Your task to perform on an android device: Empty the shopping cart on ebay.com. Add usb-a to the cart on ebay.com Image 0: 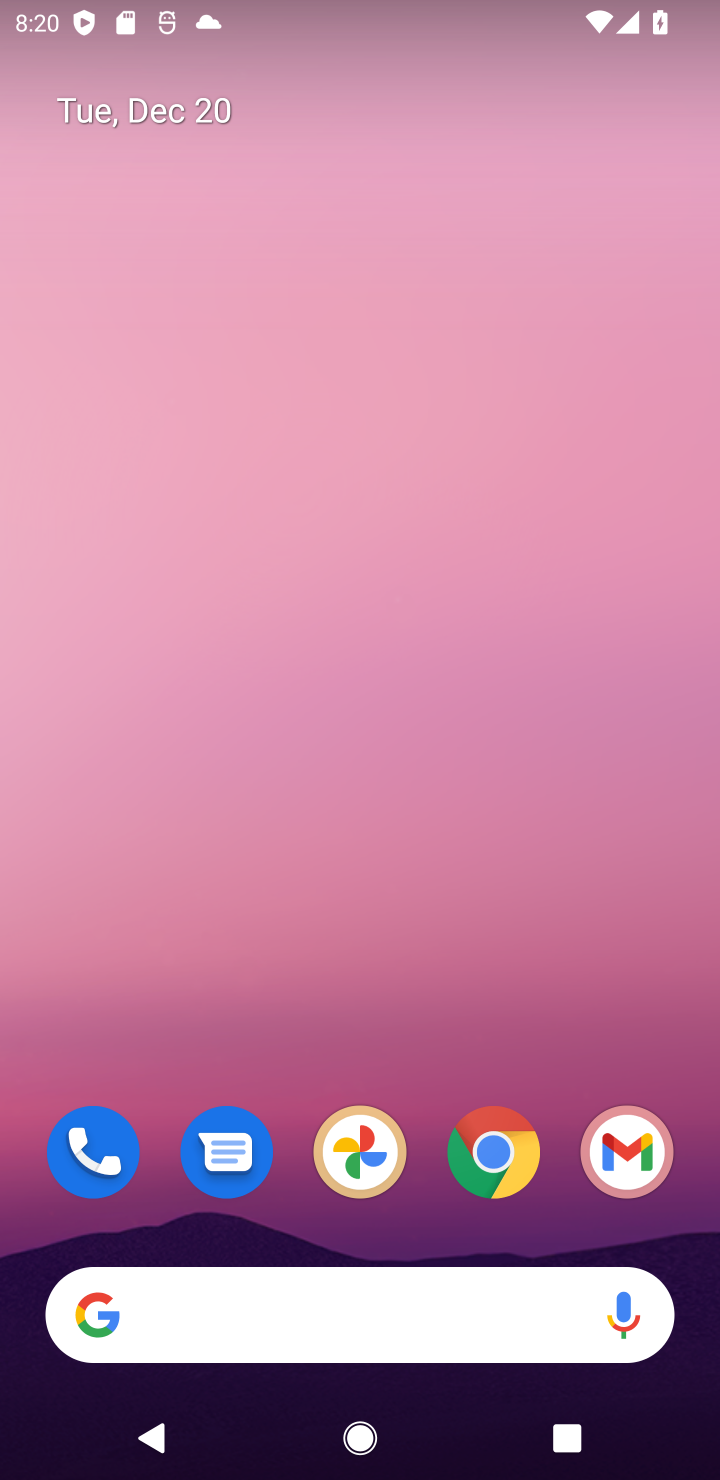
Step 0: click (492, 1175)
Your task to perform on an android device: Empty the shopping cart on ebay.com. Add usb-a to the cart on ebay.com Image 1: 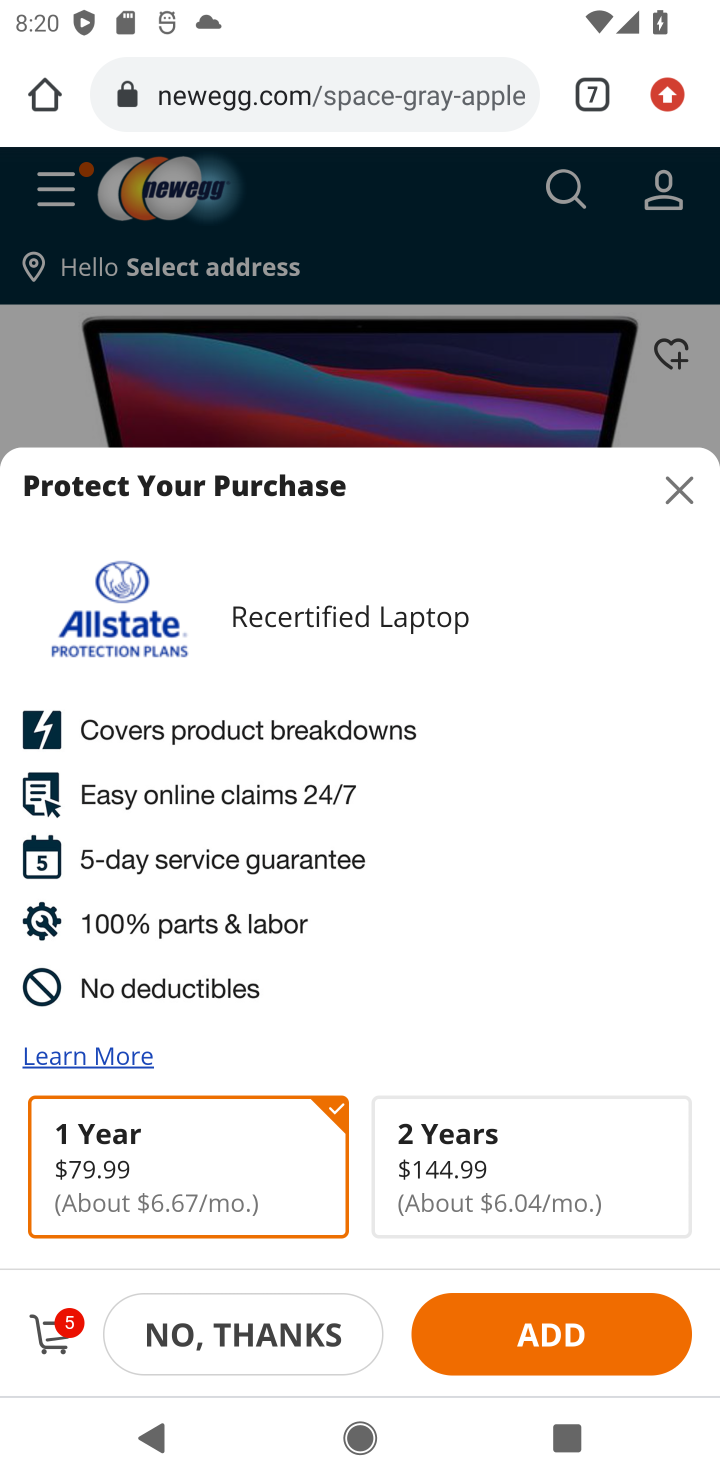
Step 1: click (601, 95)
Your task to perform on an android device: Empty the shopping cart on ebay.com. Add usb-a to the cart on ebay.com Image 2: 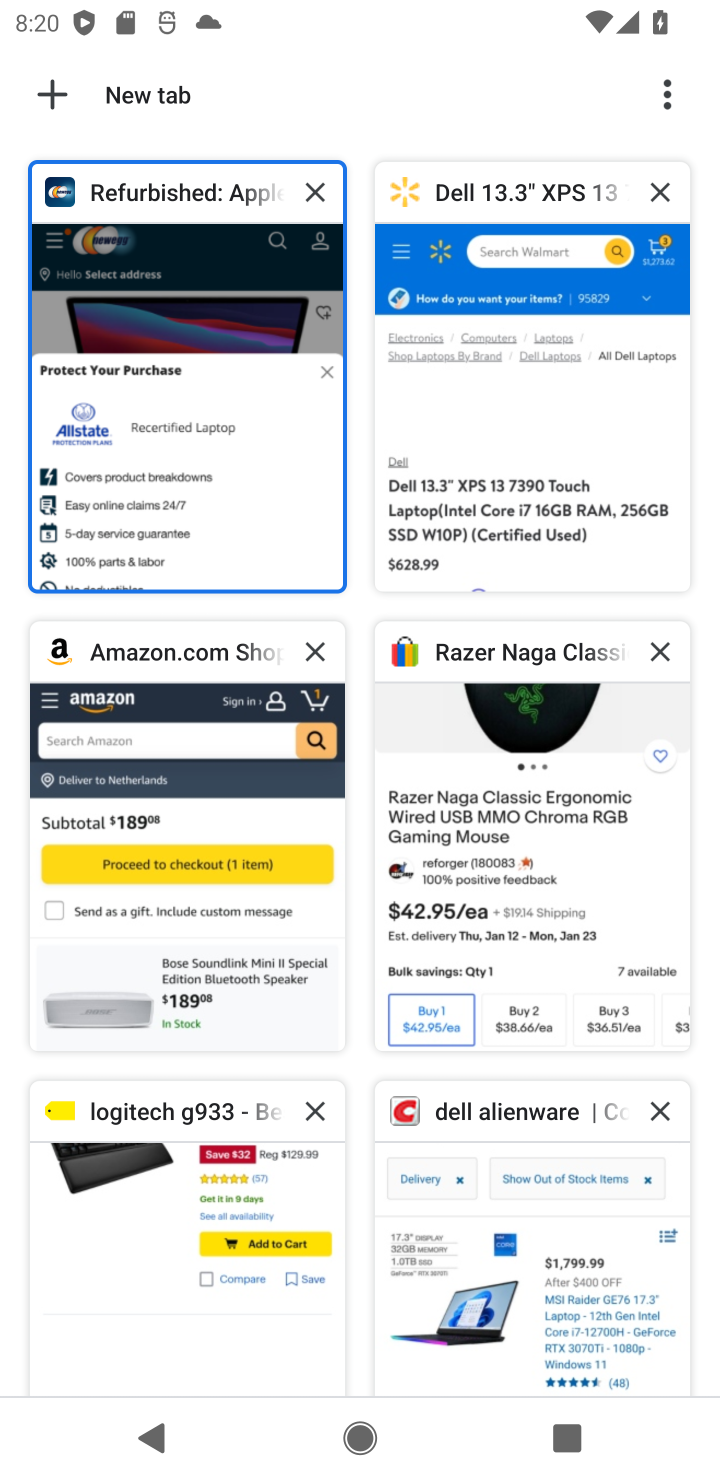
Step 2: click (544, 806)
Your task to perform on an android device: Empty the shopping cart on ebay.com. Add usb-a to the cart on ebay.com Image 3: 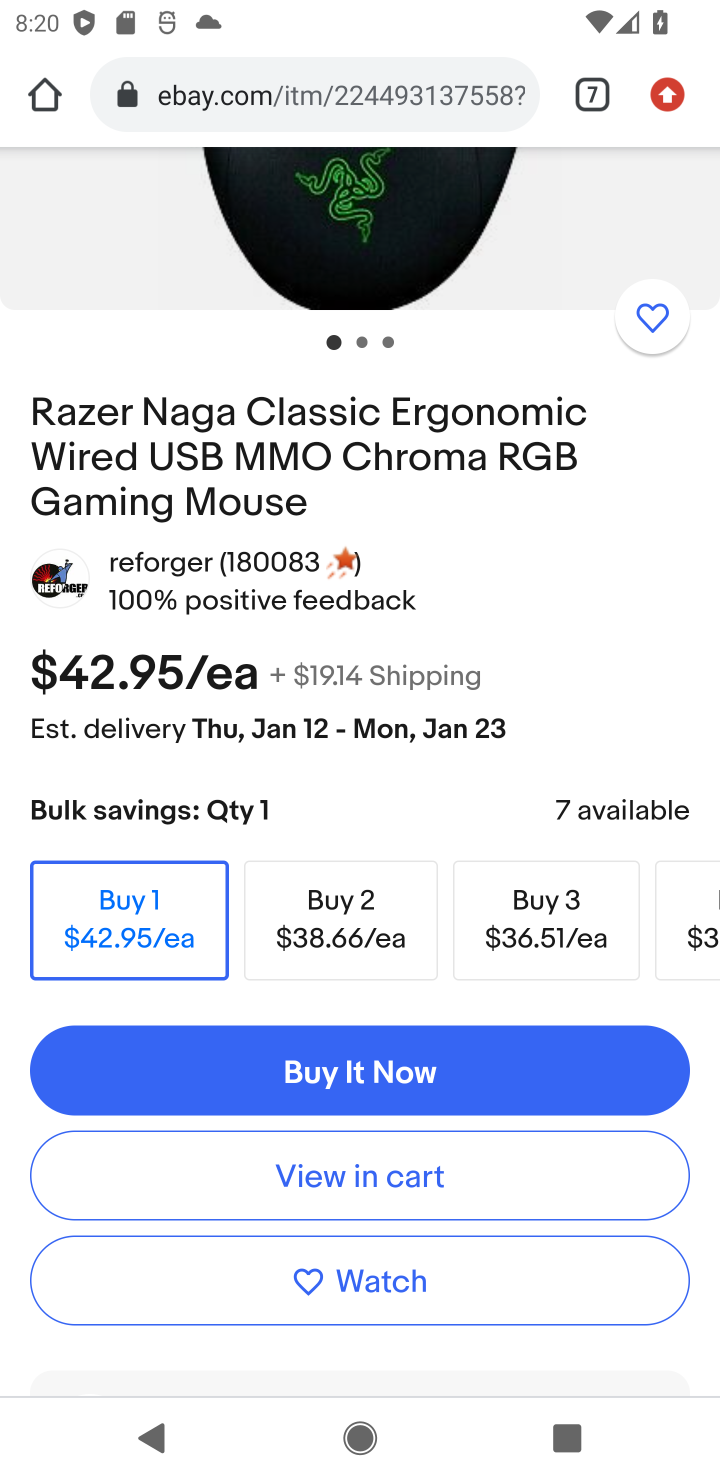
Step 3: click (311, 1181)
Your task to perform on an android device: Empty the shopping cart on ebay.com. Add usb-a to the cart on ebay.com Image 4: 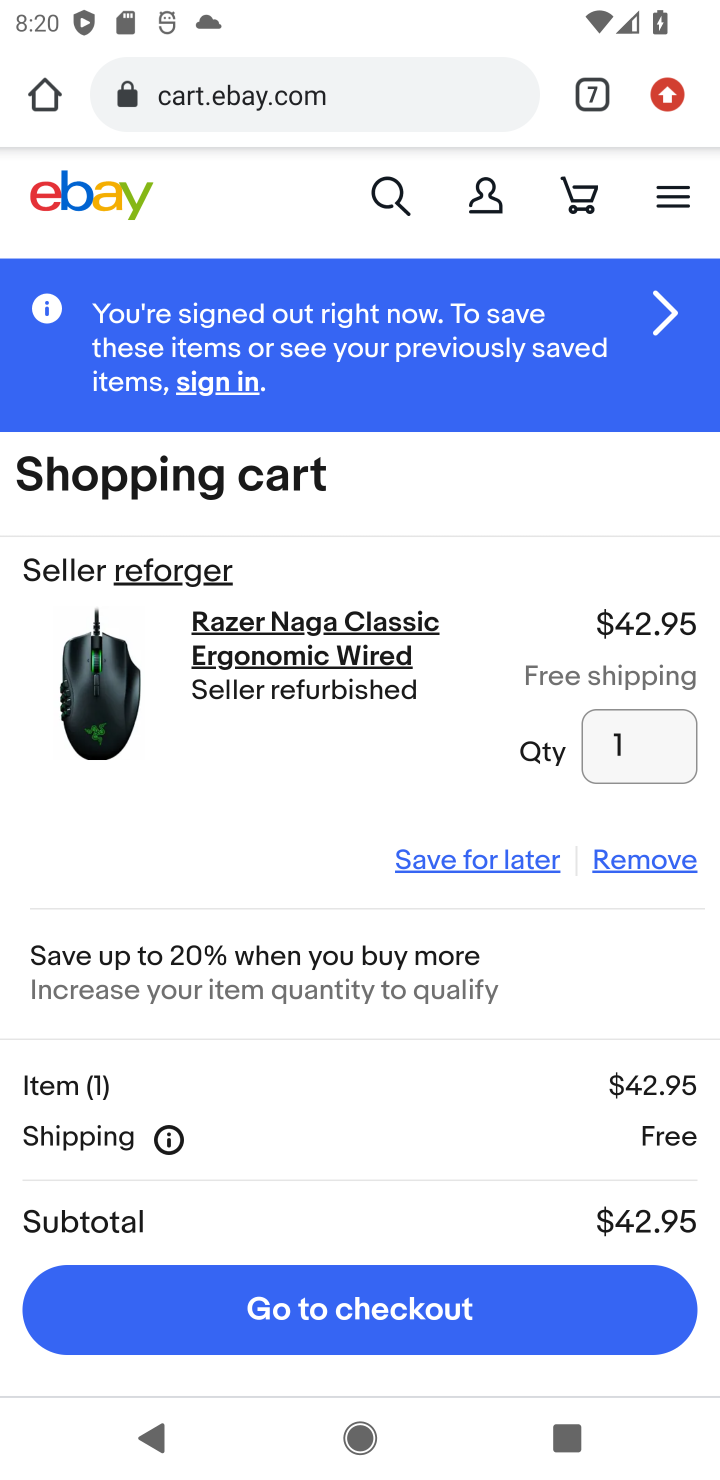
Step 4: click (619, 861)
Your task to perform on an android device: Empty the shopping cart on ebay.com. Add usb-a to the cart on ebay.com Image 5: 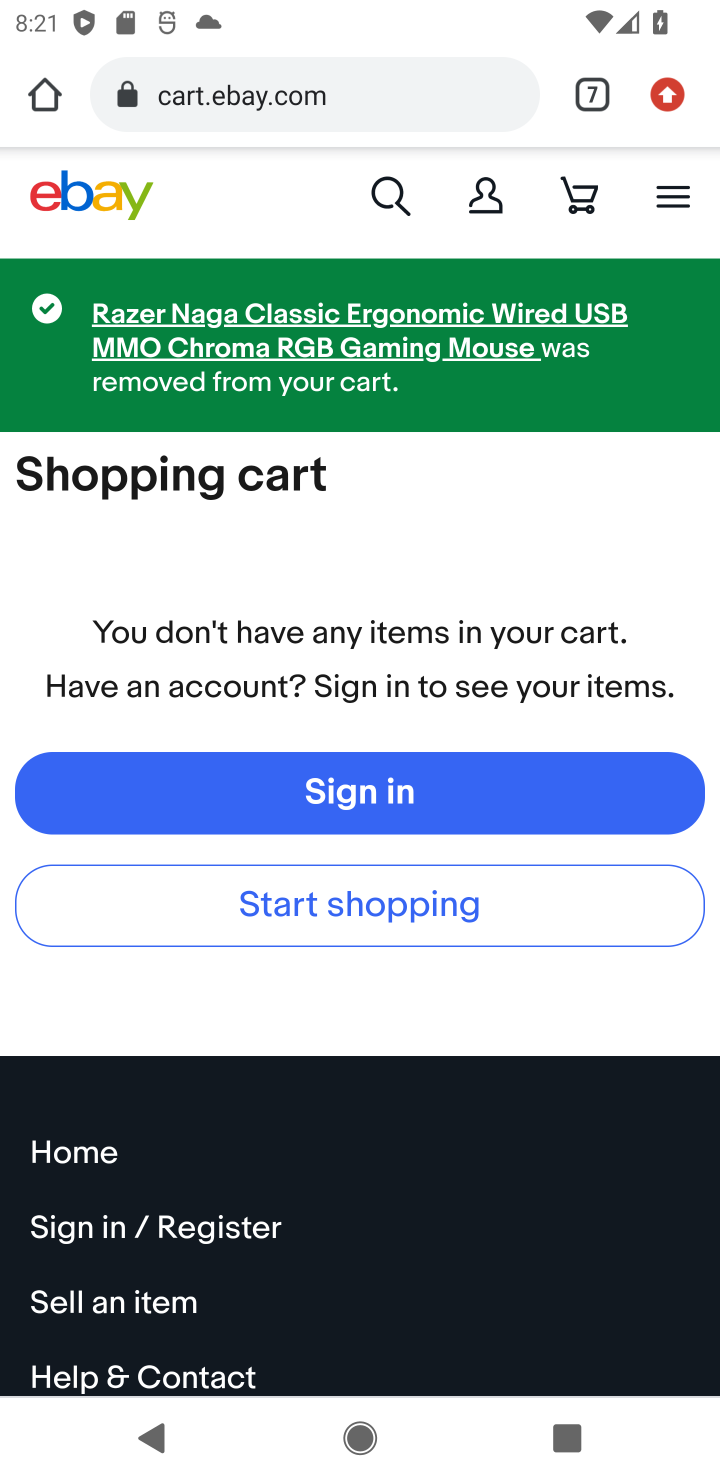
Step 5: click (391, 197)
Your task to perform on an android device: Empty the shopping cart on ebay.com. Add usb-a to the cart on ebay.com Image 6: 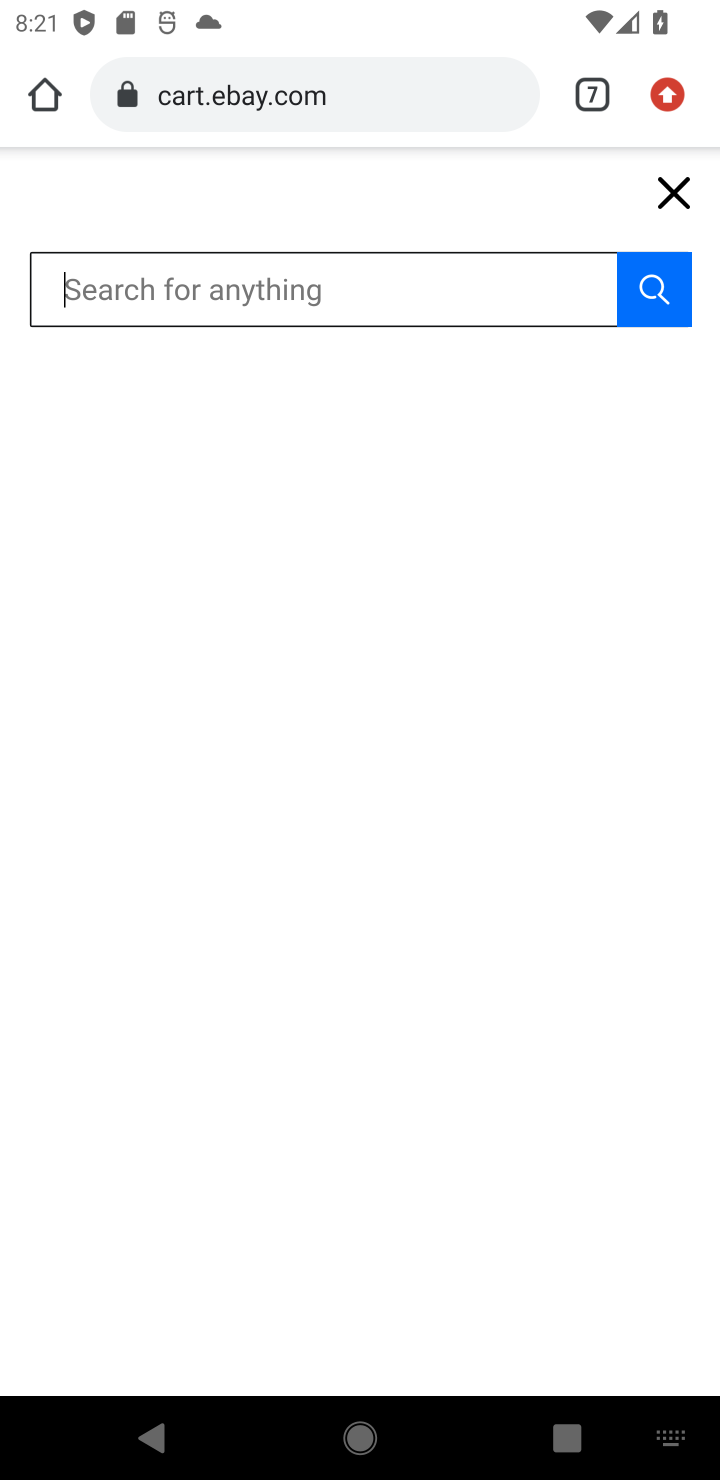
Step 6: type "usb-a "
Your task to perform on an android device: Empty the shopping cart on ebay.com. Add usb-a to the cart on ebay.com Image 7: 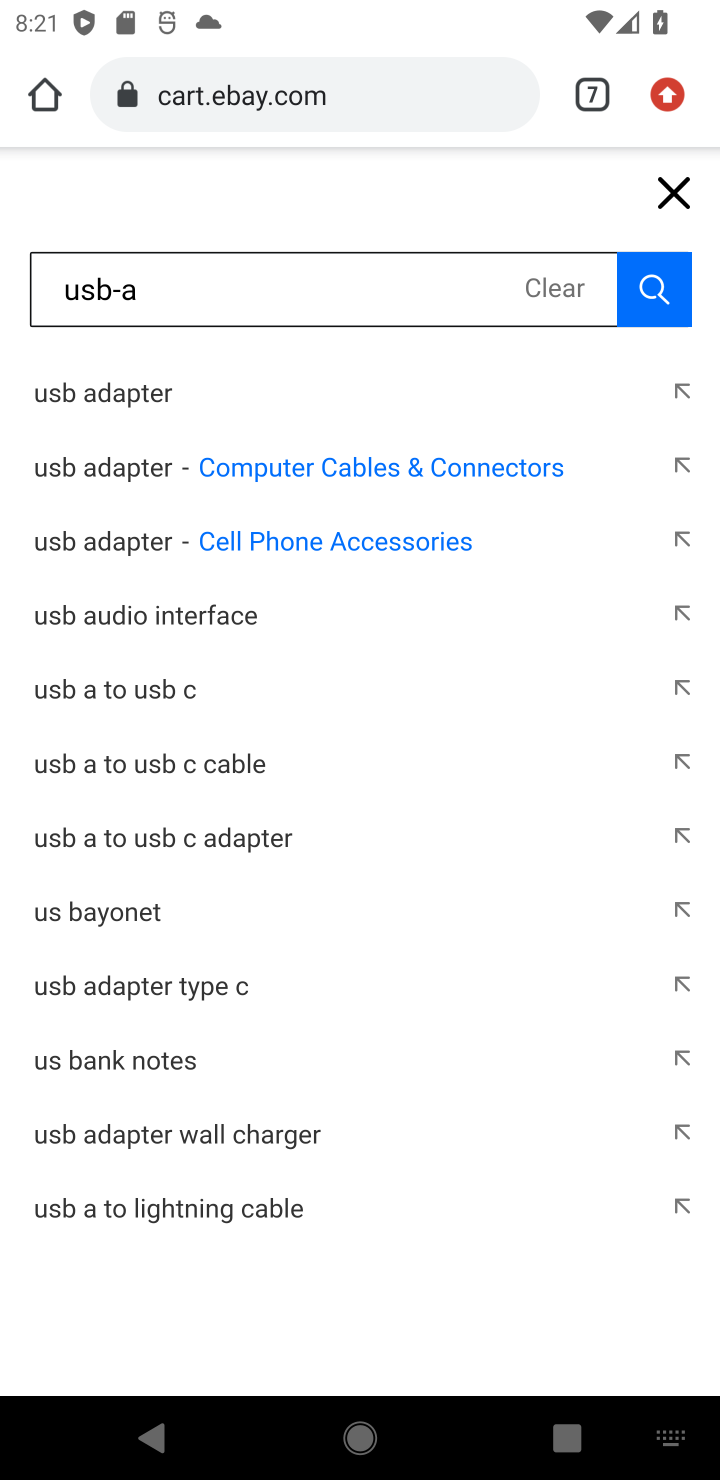
Step 7: click (652, 279)
Your task to perform on an android device: Empty the shopping cart on ebay.com. Add usb-a to the cart on ebay.com Image 8: 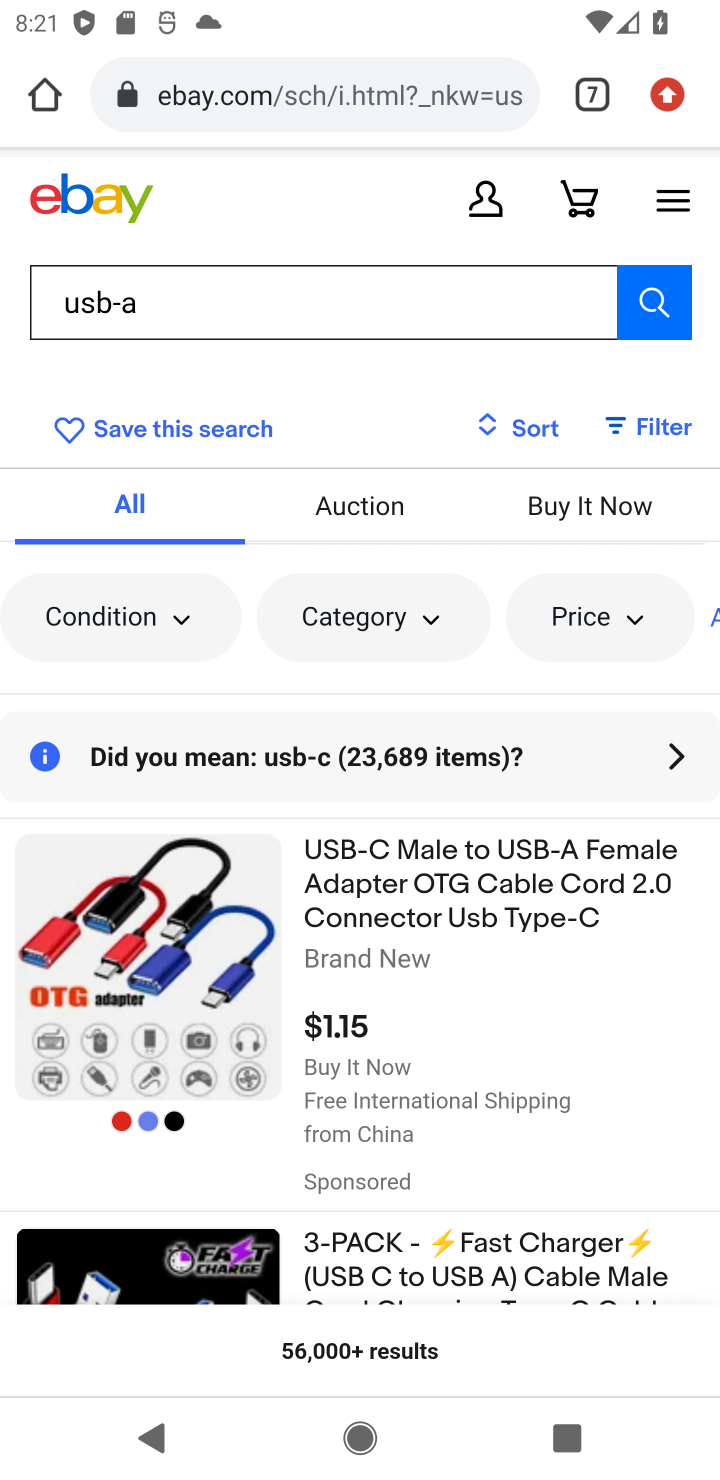
Step 8: task complete